Your task to perform on an android device: Add "usb-a" to the cart on target Image 0: 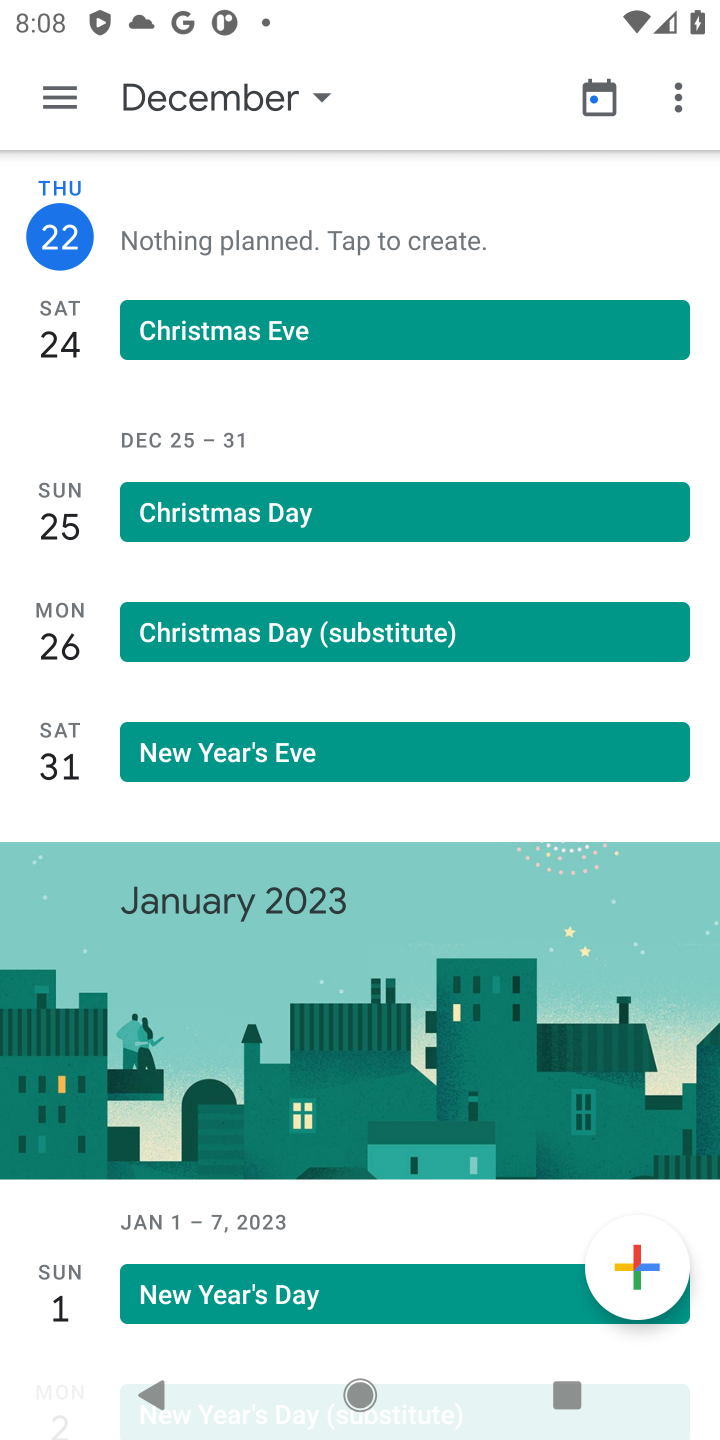
Step 0: press home button
Your task to perform on an android device: Add "usb-a" to the cart on target Image 1: 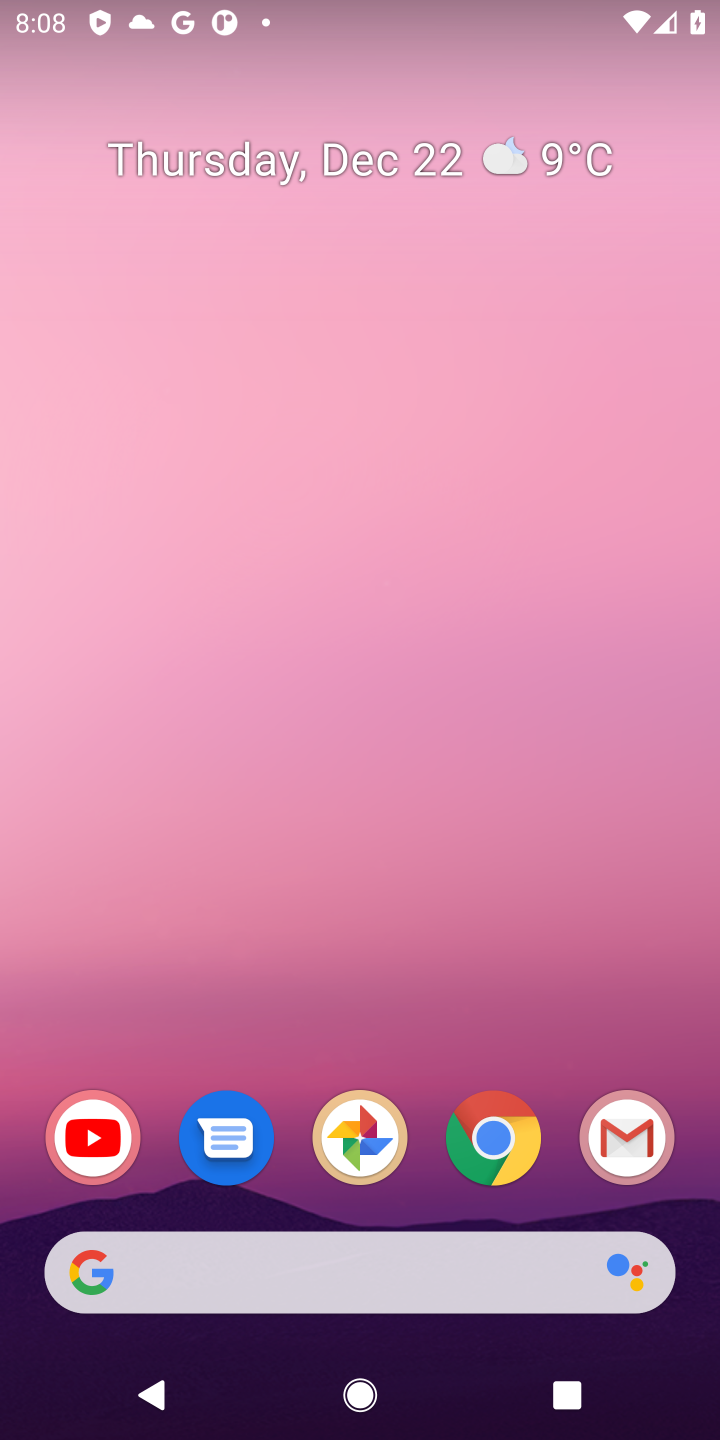
Step 1: click (505, 1152)
Your task to perform on an android device: Add "usb-a" to the cart on target Image 2: 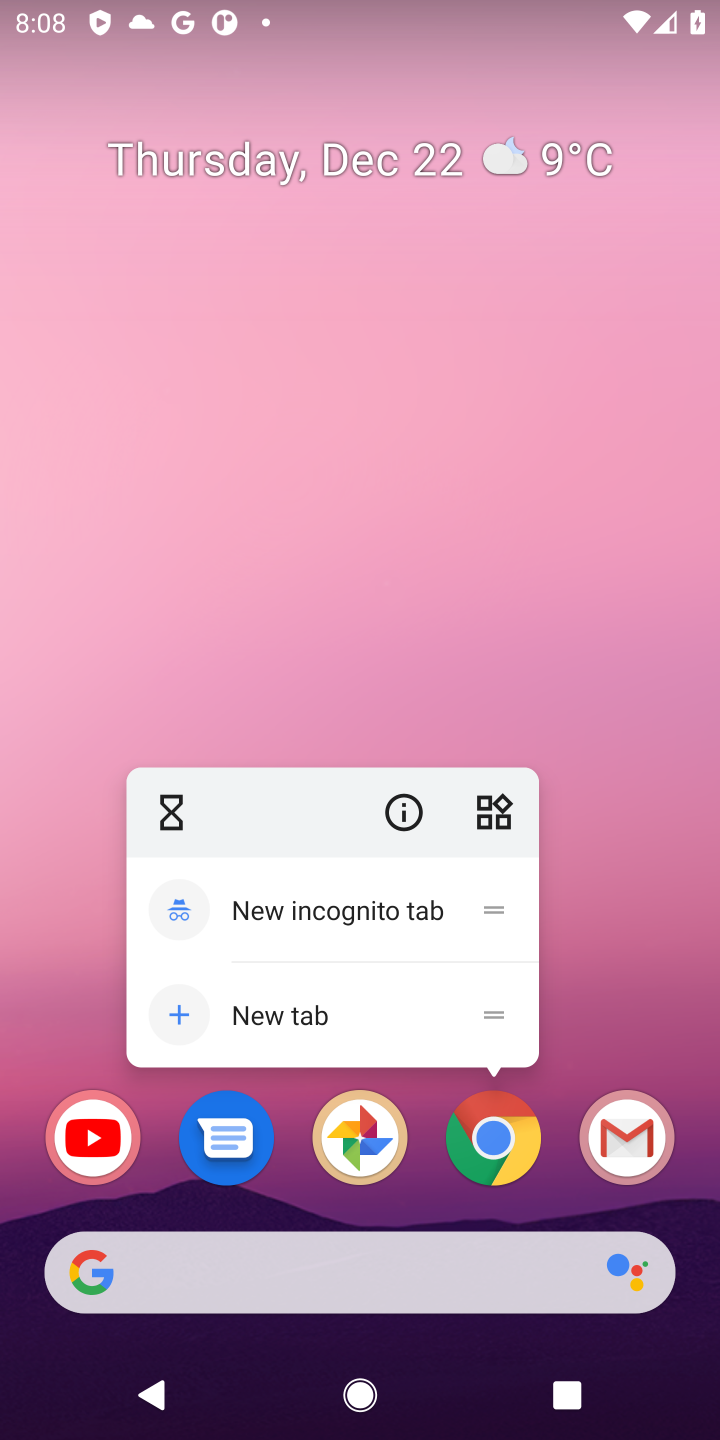
Step 2: click (488, 1140)
Your task to perform on an android device: Add "usb-a" to the cart on target Image 3: 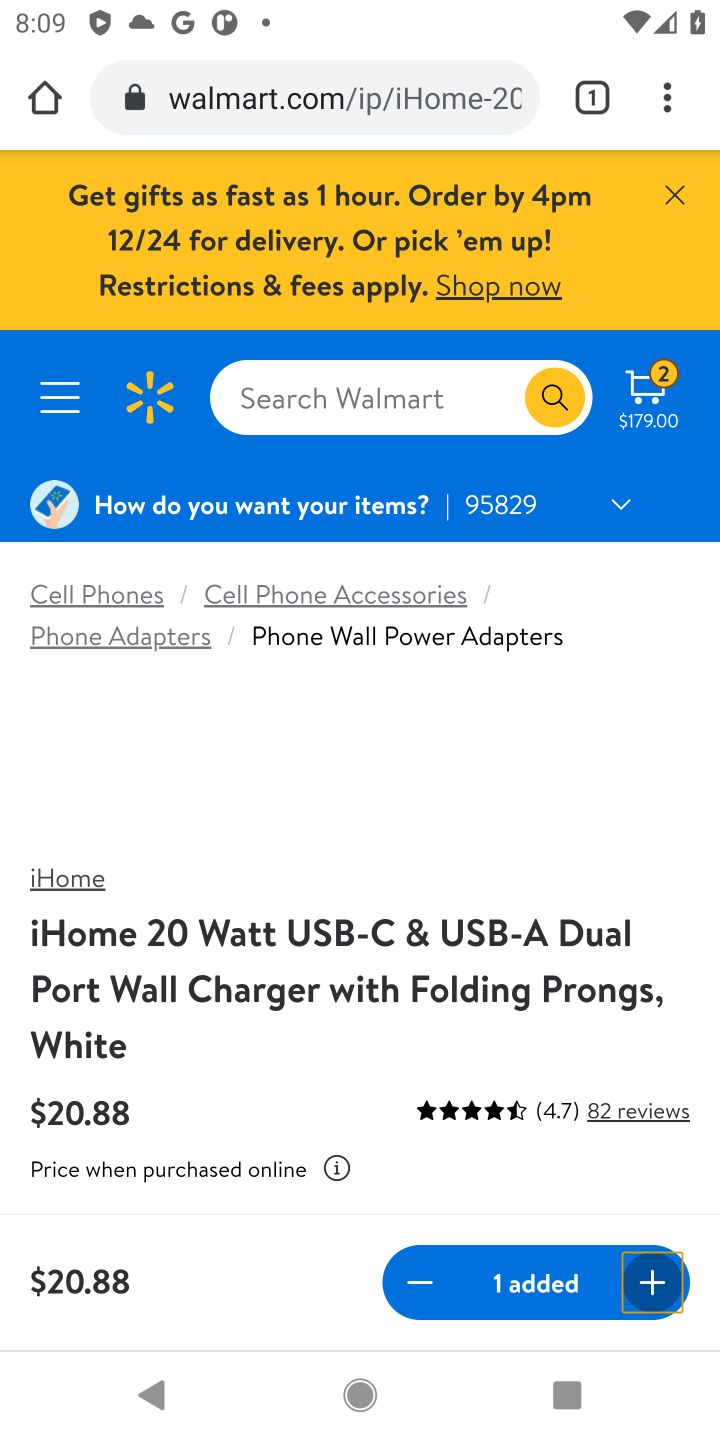
Step 3: click (388, 107)
Your task to perform on an android device: Add "usb-a" to the cart on target Image 4: 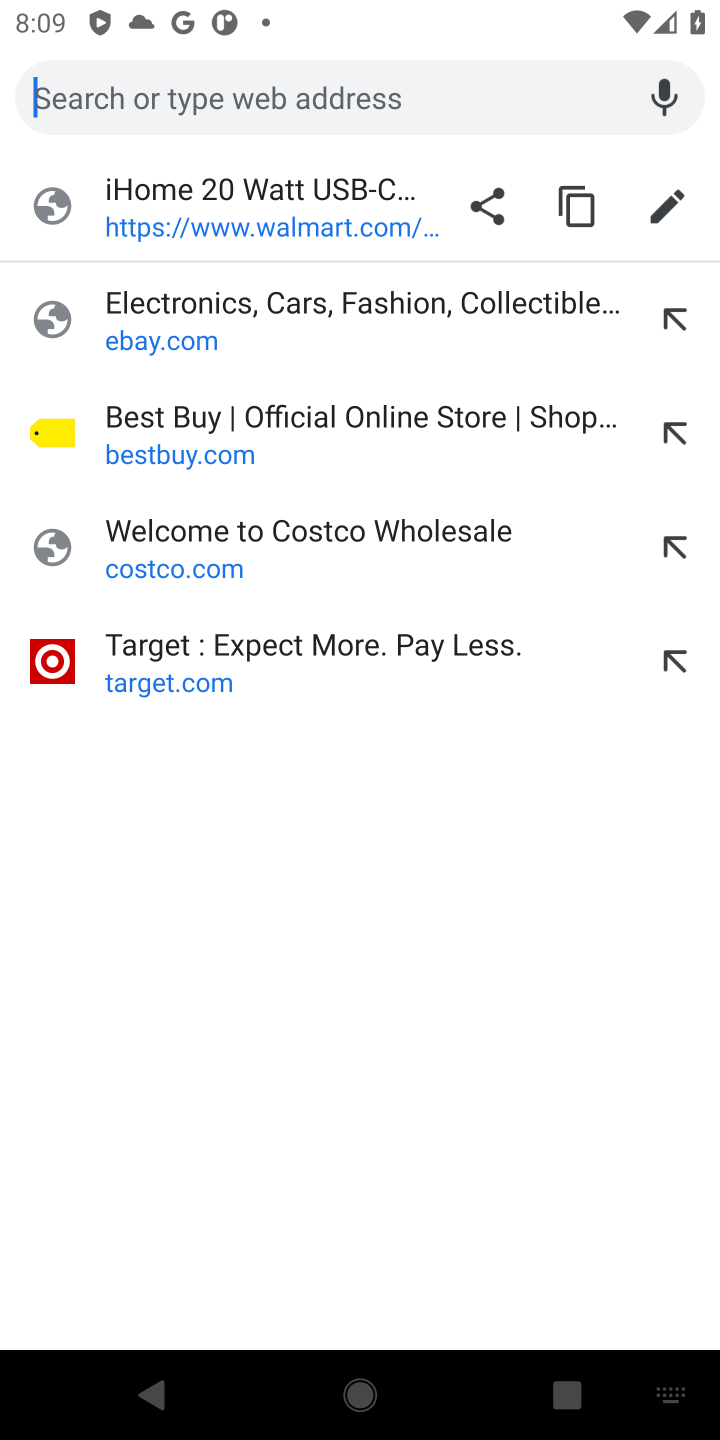
Step 4: click (334, 641)
Your task to perform on an android device: Add "usb-a" to the cart on target Image 5: 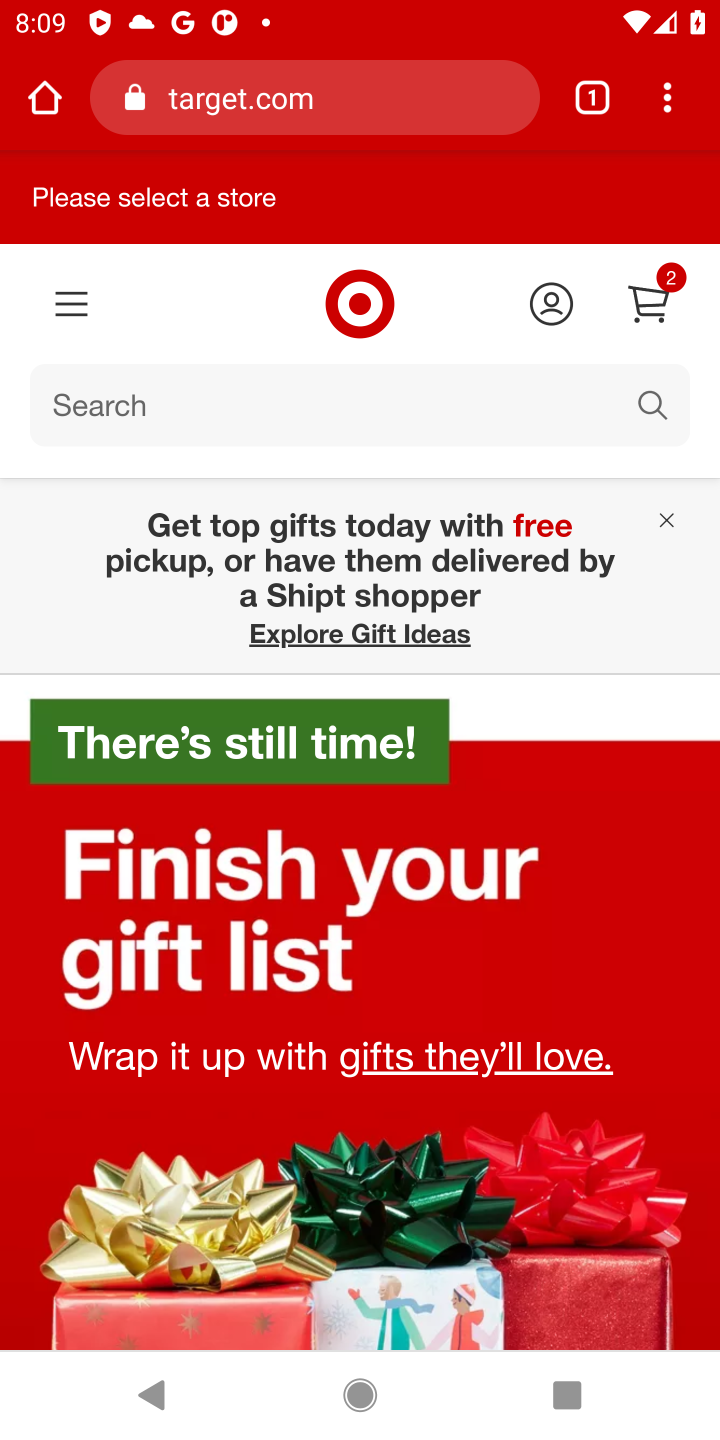
Step 5: click (648, 398)
Your task to perform on an android device: Add "usb-a" to the cart on target Image 6: 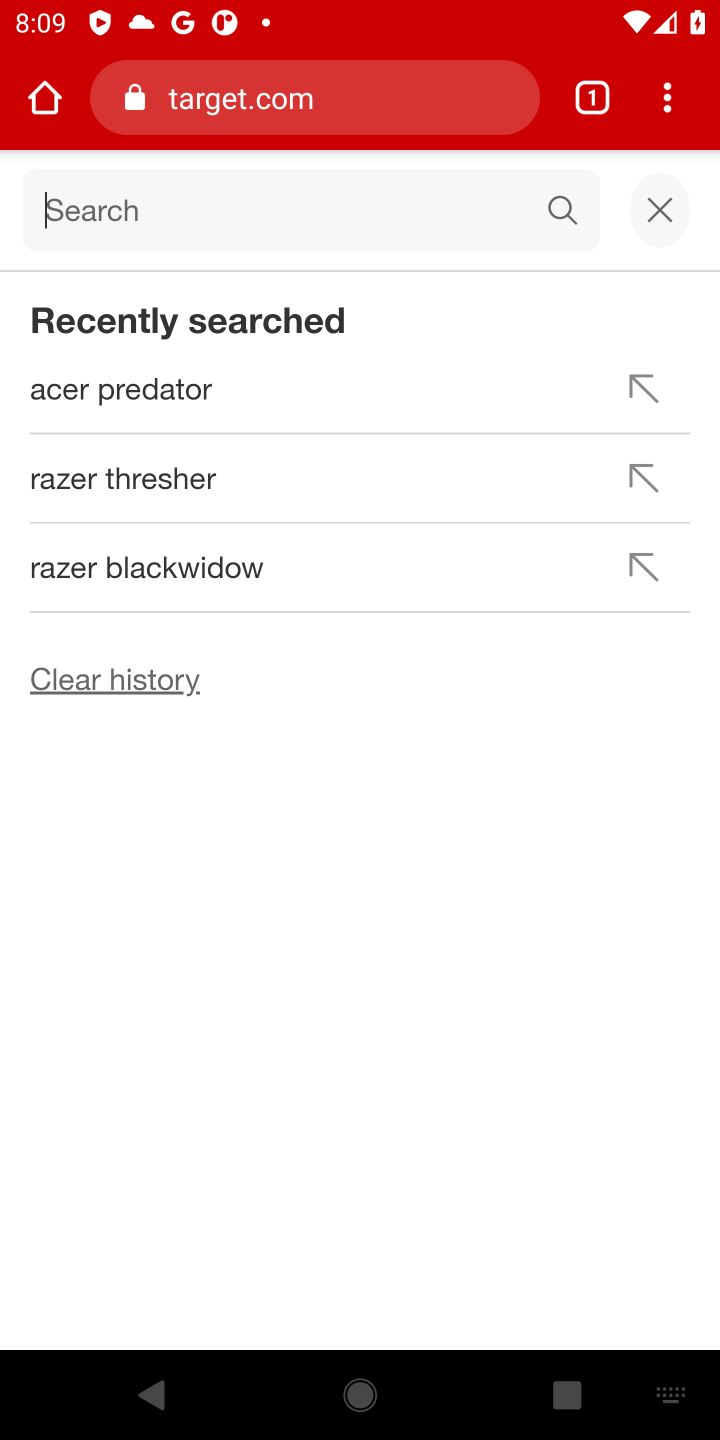
Step 6: type "usb-a"
Your task to perform on an android device: Add "usb-a" to the cart on target Image 7: 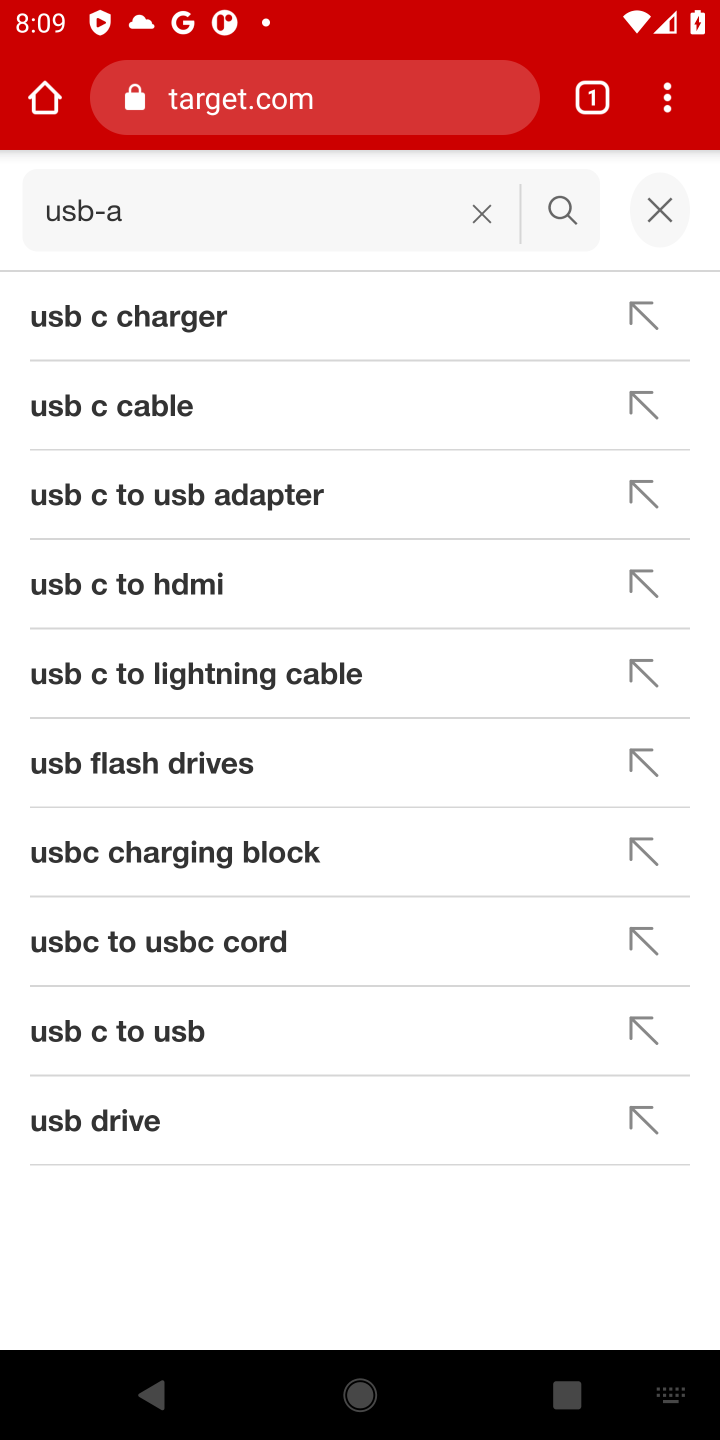
Step 7: click (550, 205)
Your task to perform on an android device: Add "usb-a" to the cart on target Image 8: 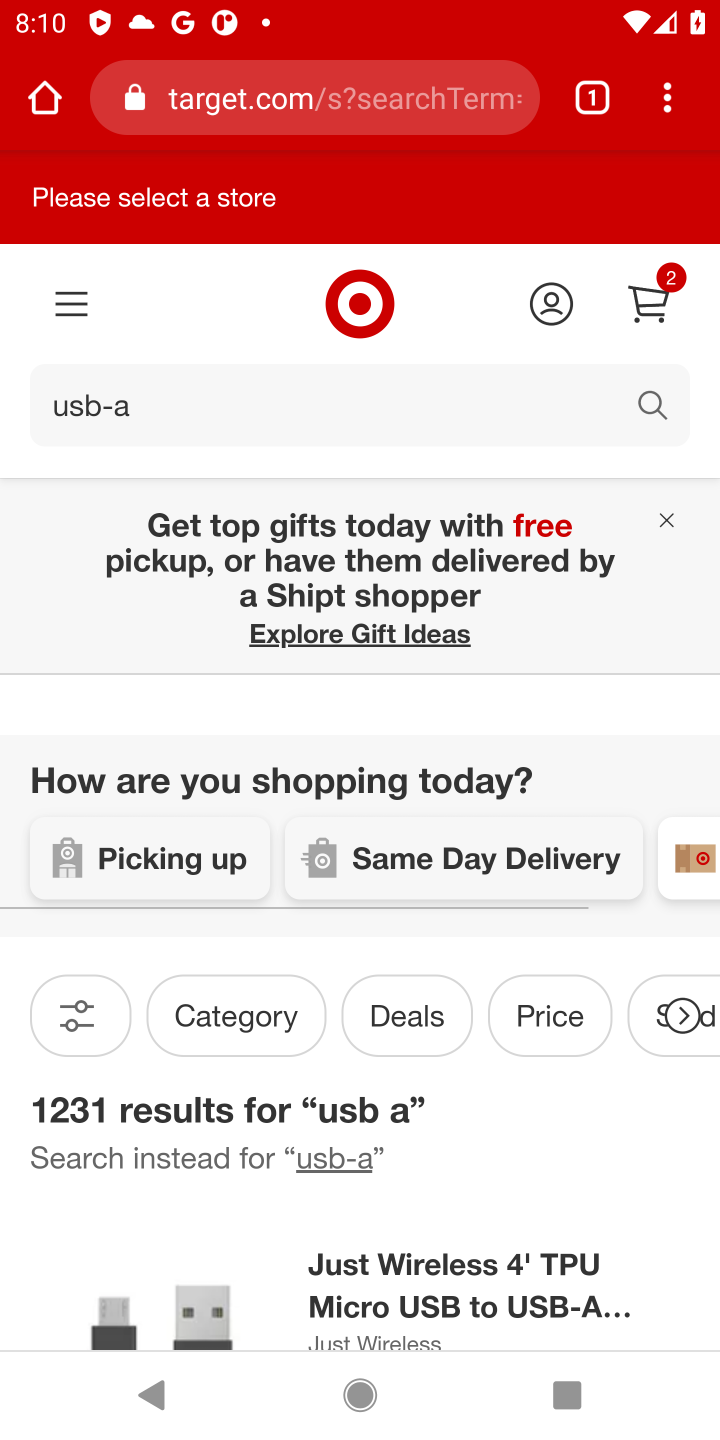
Step 8: drag from (507, 1115) to (591, 481)
Your task to perform on an android device: Add "usb-a" to the cart on target Image 9: 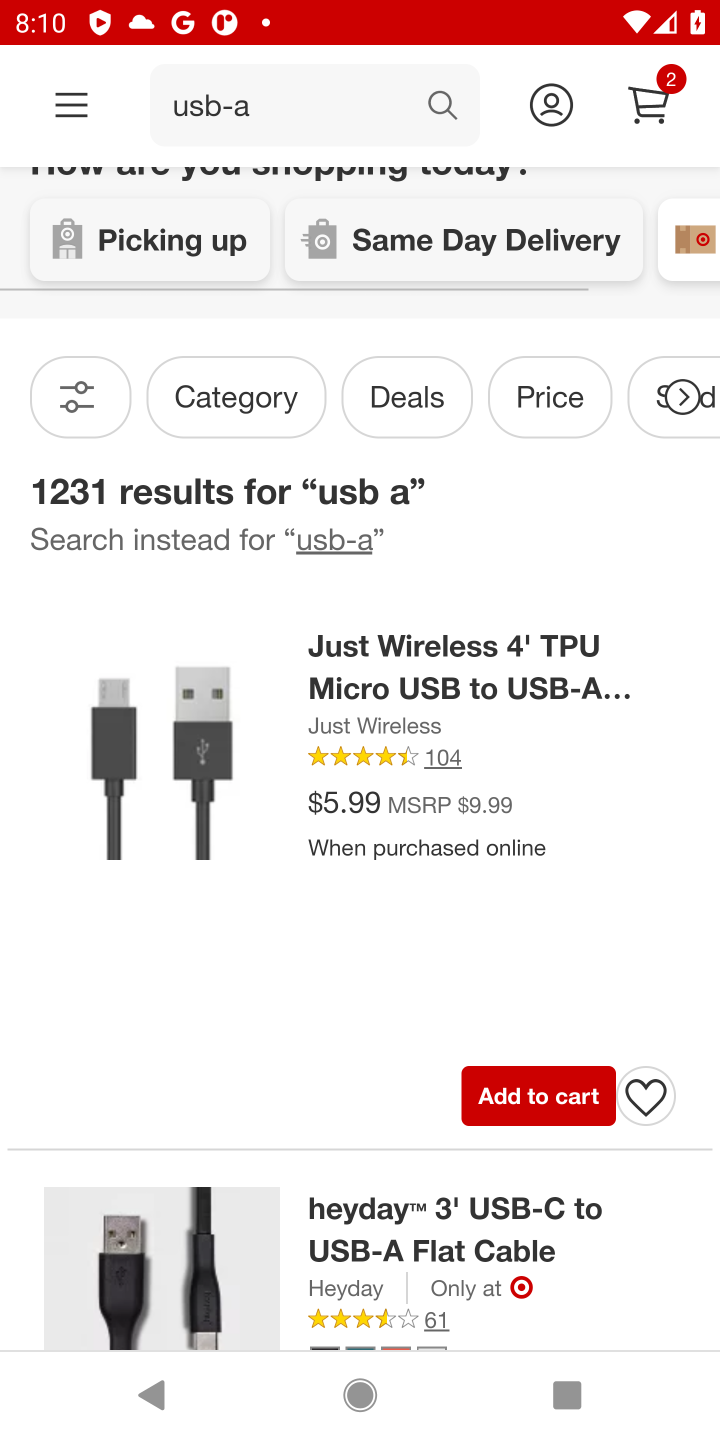
Step 9: click (141, 742)
Your task to perform on an android device: Add "usb-a" to the cart on target Image 10: 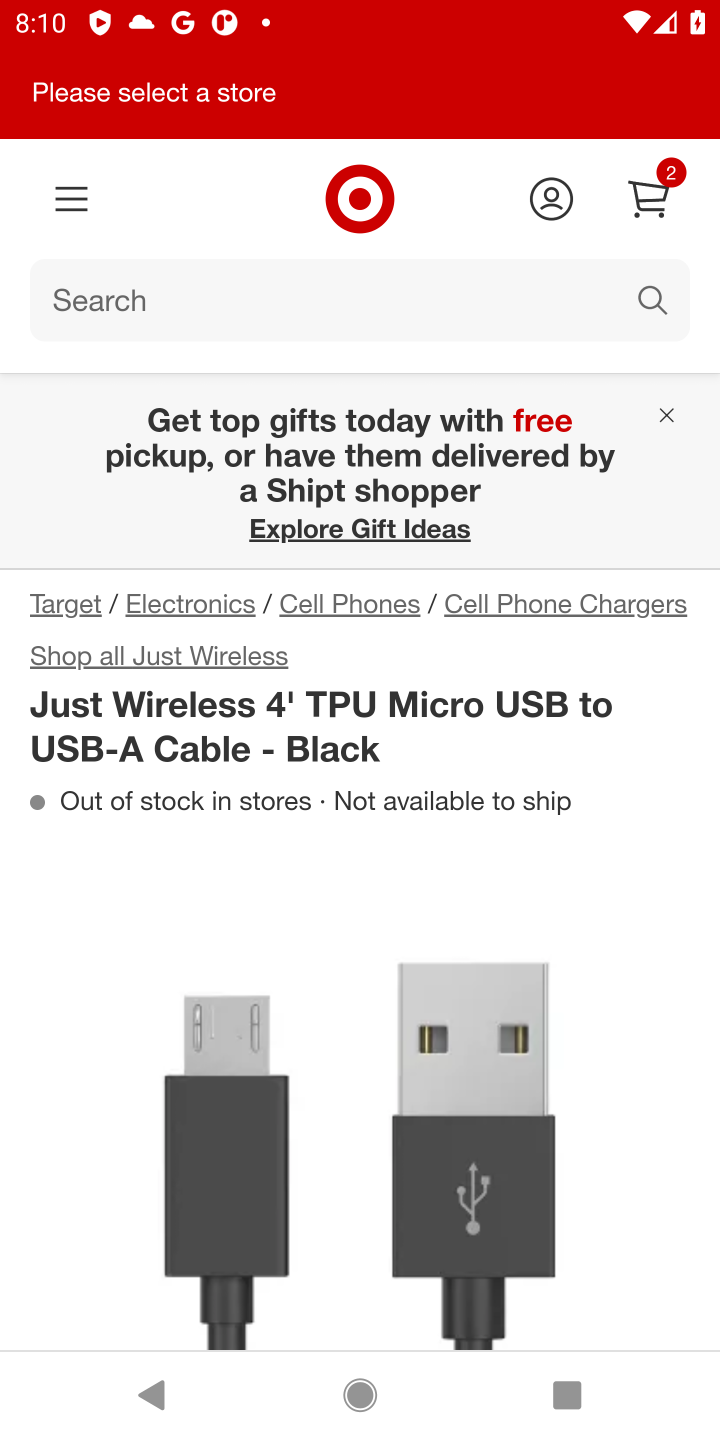
Step 10: drag from (591, 1011) to (640, 225)
Your task to perform on an android device: Add "usb-a" to the cart on target Image 11: 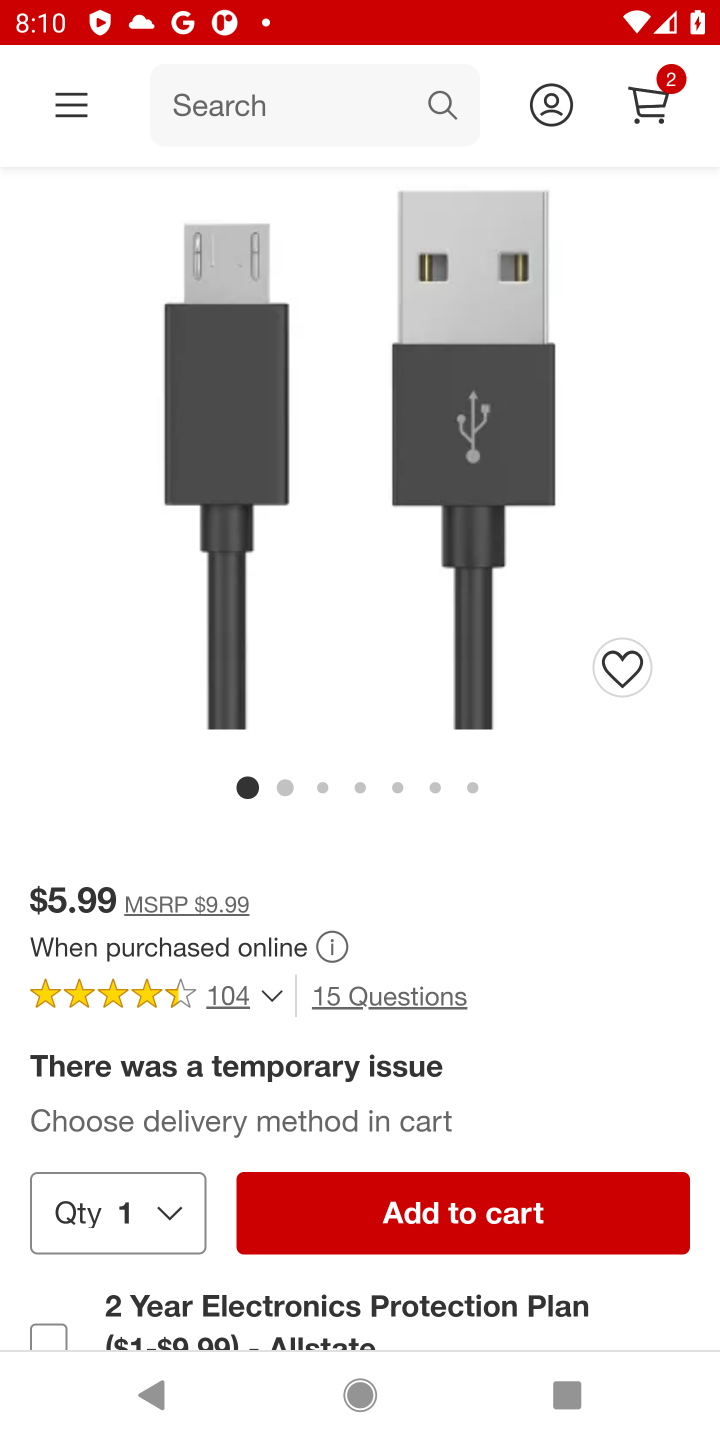
Step 11: click (448, 1217)
Your task to perform on an android device: Add "usb-a" to the cart on target Image 12: 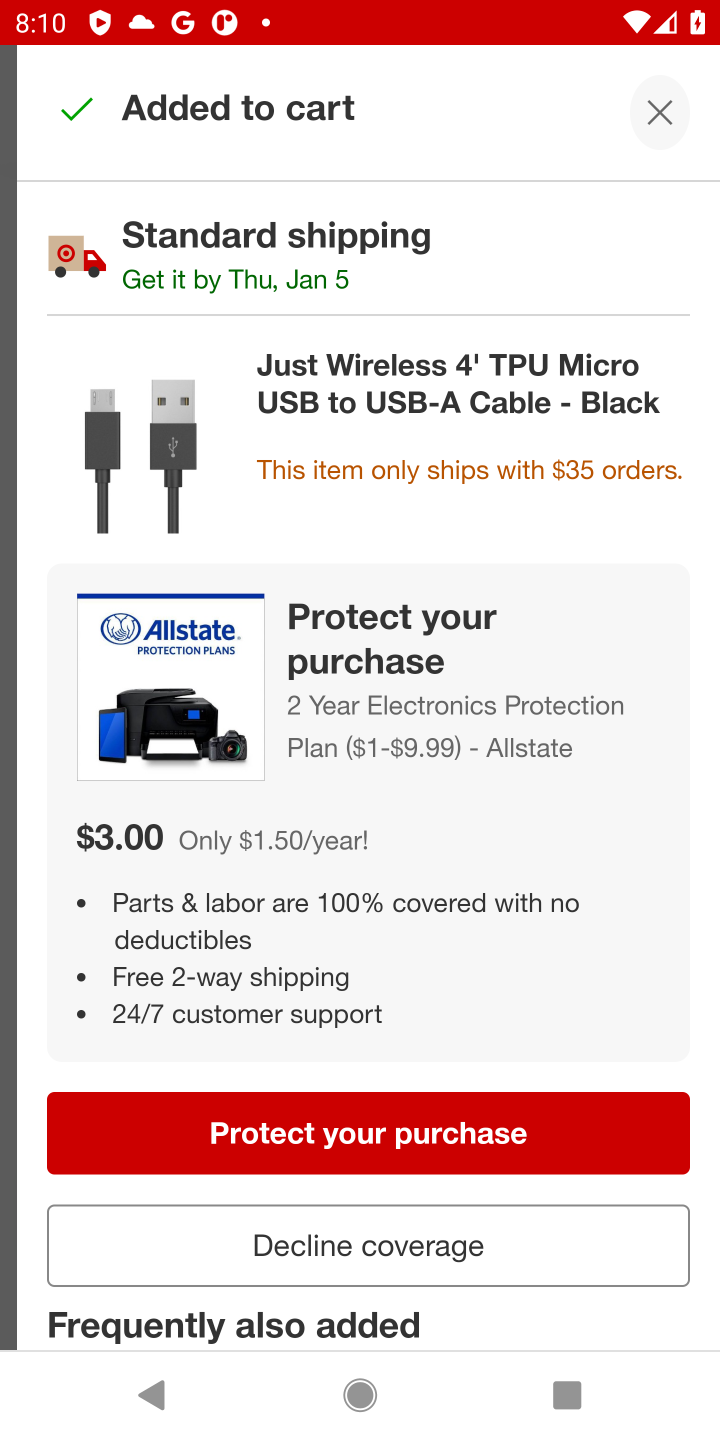
Step 12: task complete